Your task to perform on an android device: turn on improve location accuracy Image 0: 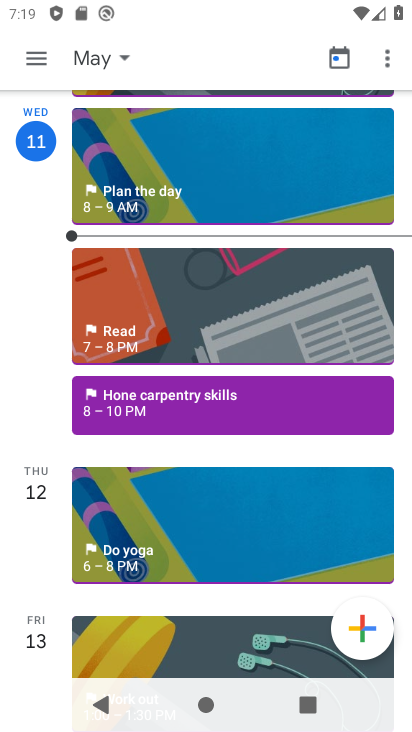
Step 0: press home button
Your task to perform on an android device: turn on improve location accuracy Image 1: 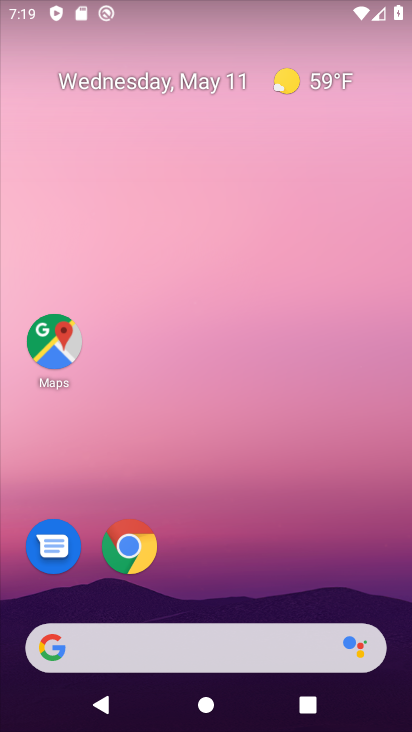
Step 1: drag from (301, 511) to (290, 173)
Your task to perform on an android device: turn on improve location accuracy Image 2: 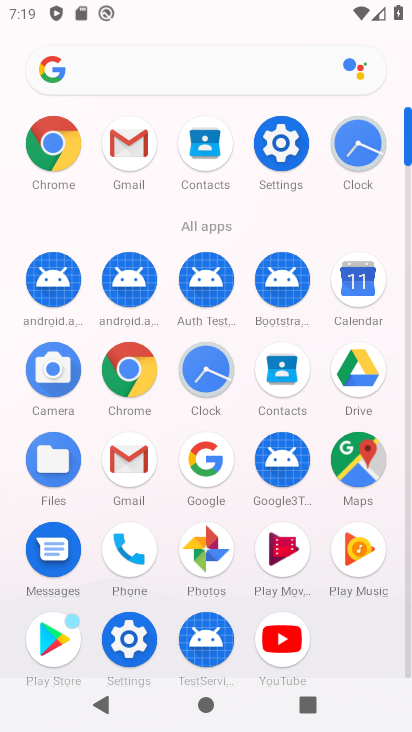
Step 2: click (282, 169)
Your task to perform on an android device: turn on improve location accuracy Image 3: 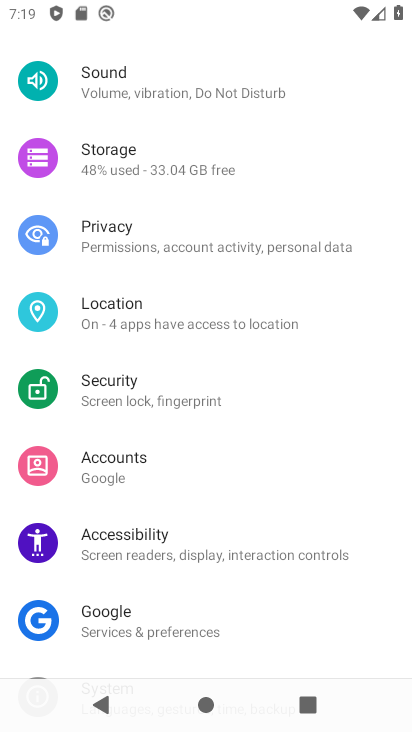
Step 3: click (170, 309)
Your task to perform on an android device: turn on improve location accuracy Image 4: 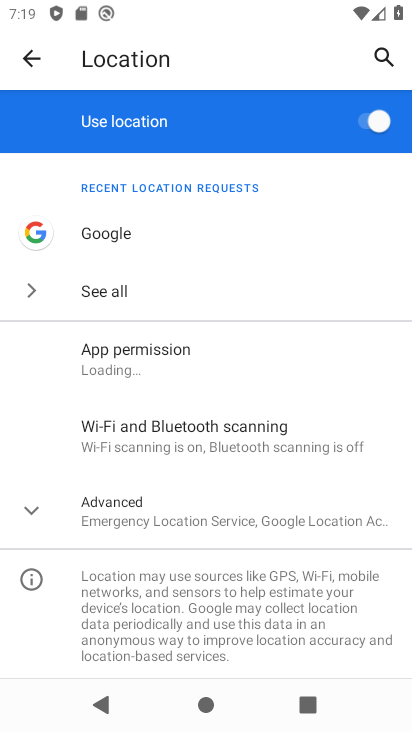
Step 4: click (145, 509)
Your task to perform on an android device: turn on improve location accuracy Image 5: 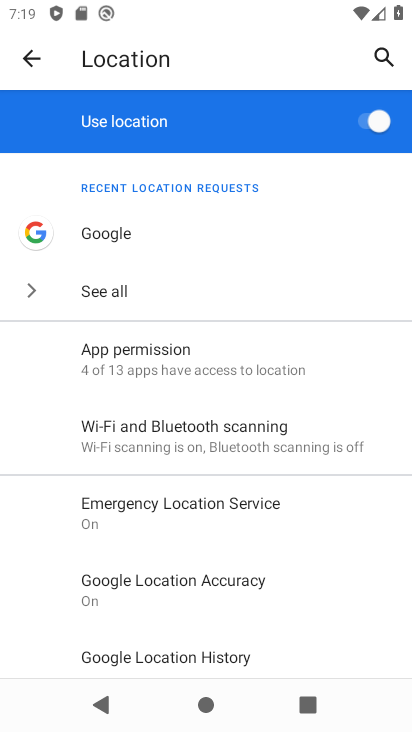
Step 5: click (214, 585)
Your task to perform on an android device: turn on improve location accuracy Image 6: 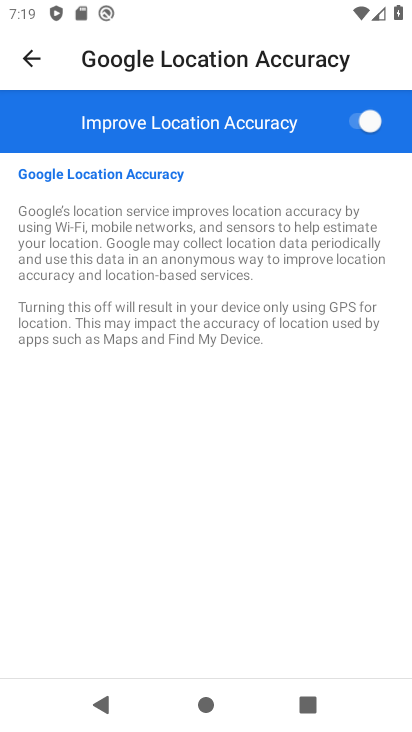
Step 6: task complete